Your task to perform on an android device: Search for the best movies of 2019  Image 0: 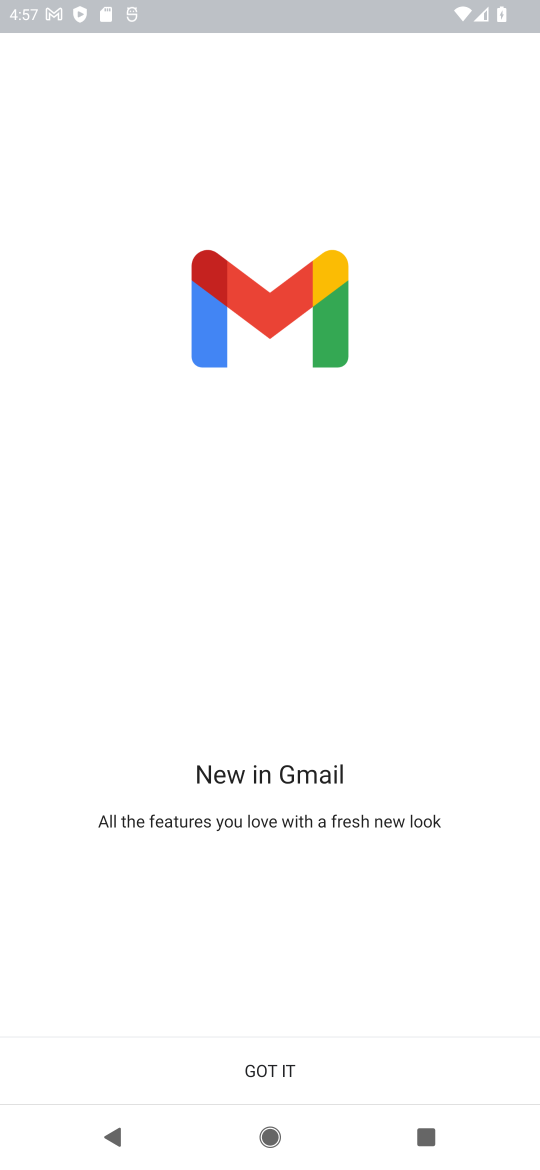
Step 0: press home button
Your task to perform on an android device: Search for the best movies of 2019  Image 1: 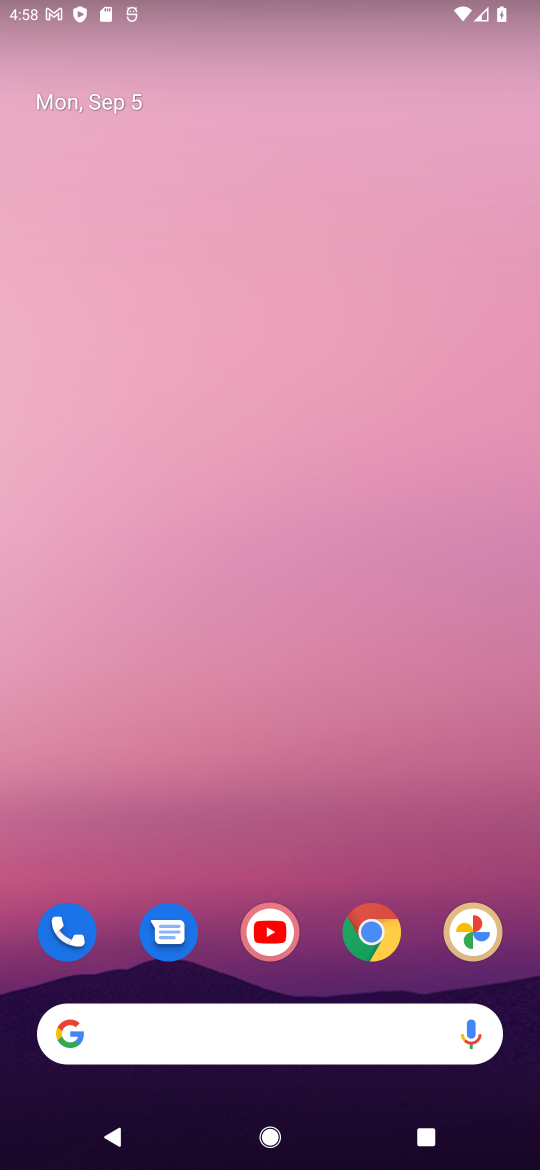
Step 1: drag from (304, 994) to (271, 134)
Your task to perform on an android device: Search for the best movies of 2019  Image 2: 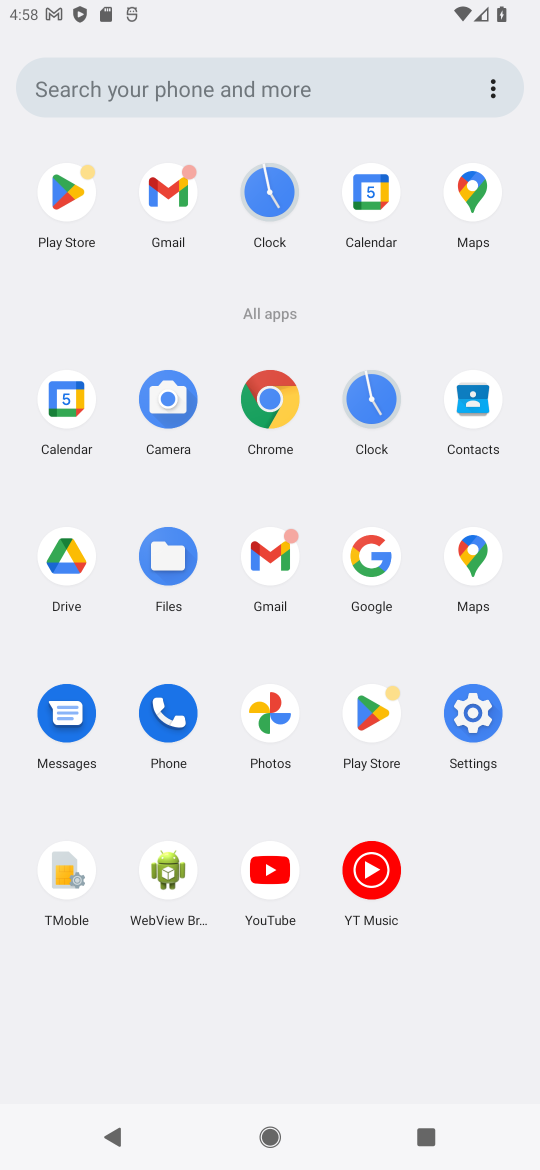
Step 2: click (377, 557)
Your task to perform on an android device: Search for the best movies of 2019  Image 3: 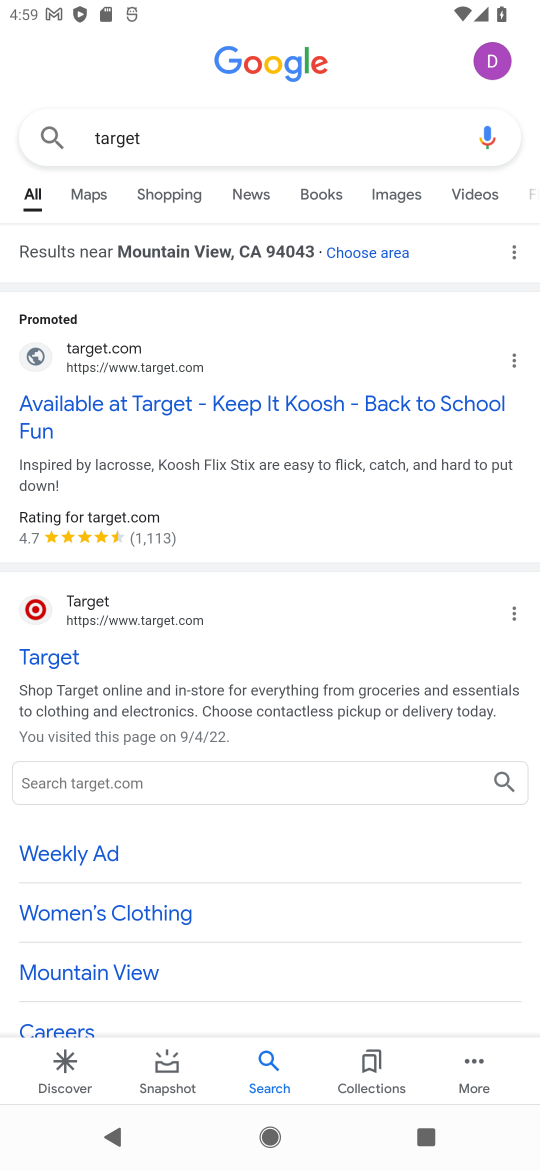
Step 3: click (184, 142)
Your task to perform on an android device: Search for the best movies of 2019  Image 4: 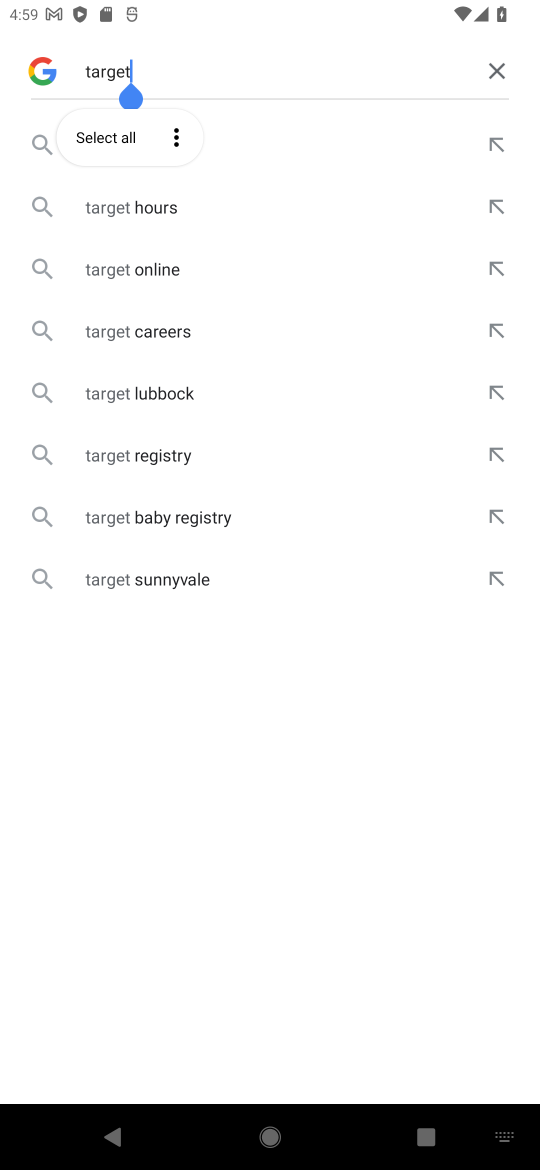
Step 4: click (483, 58)
Your task to perform on an android device: Search for the best movies of 2019  Image 5: 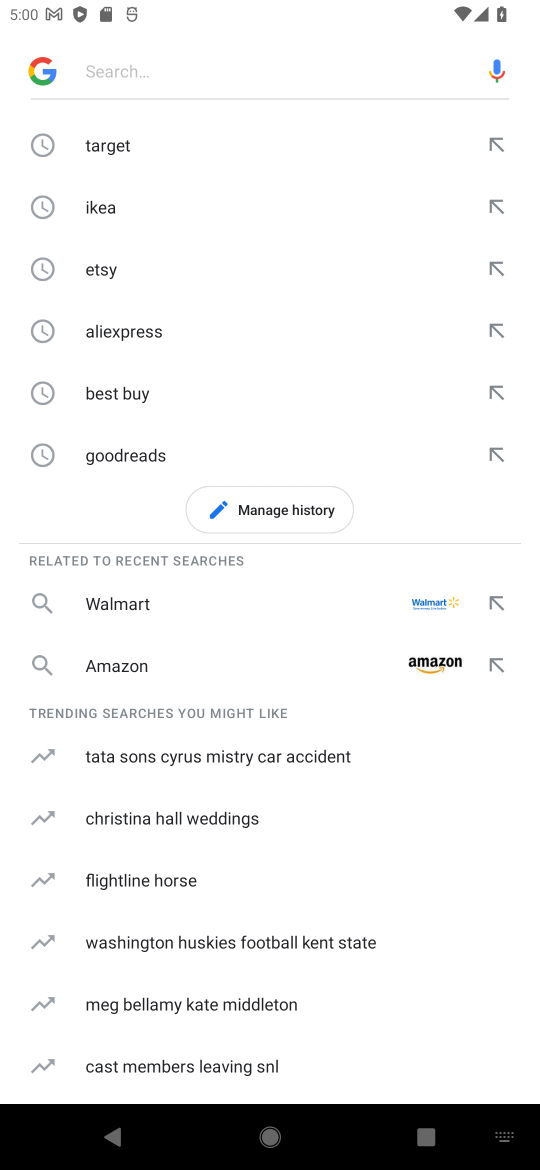
Step 5: type "best movies of 2019"
Your task to perform on an android device: Search for the best movies of 2019  Image 6: 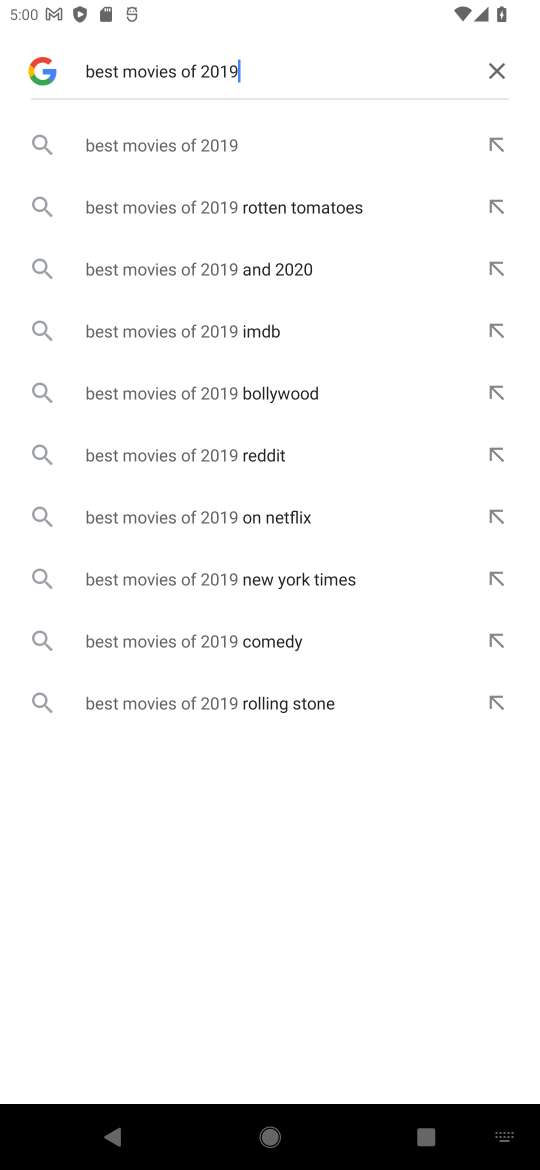
Step 6: click (150, 148)
Your task to perform on an android device: Search for the best movies of 2019  Image 7: 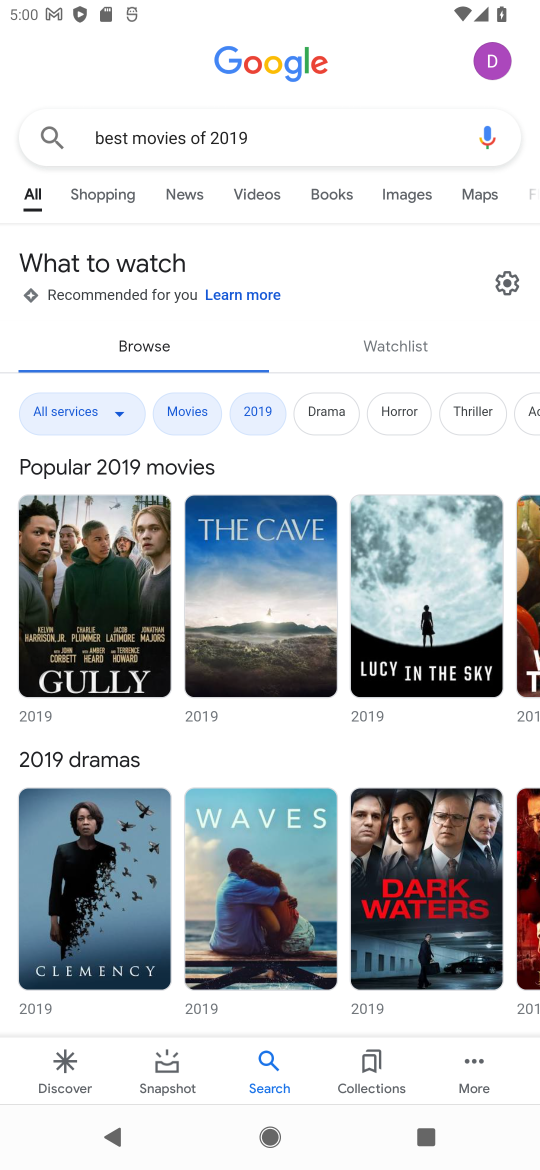
Step 7: task complete